Your task to perform on an android device: What's the latest video from GameTrailers? Image 0: 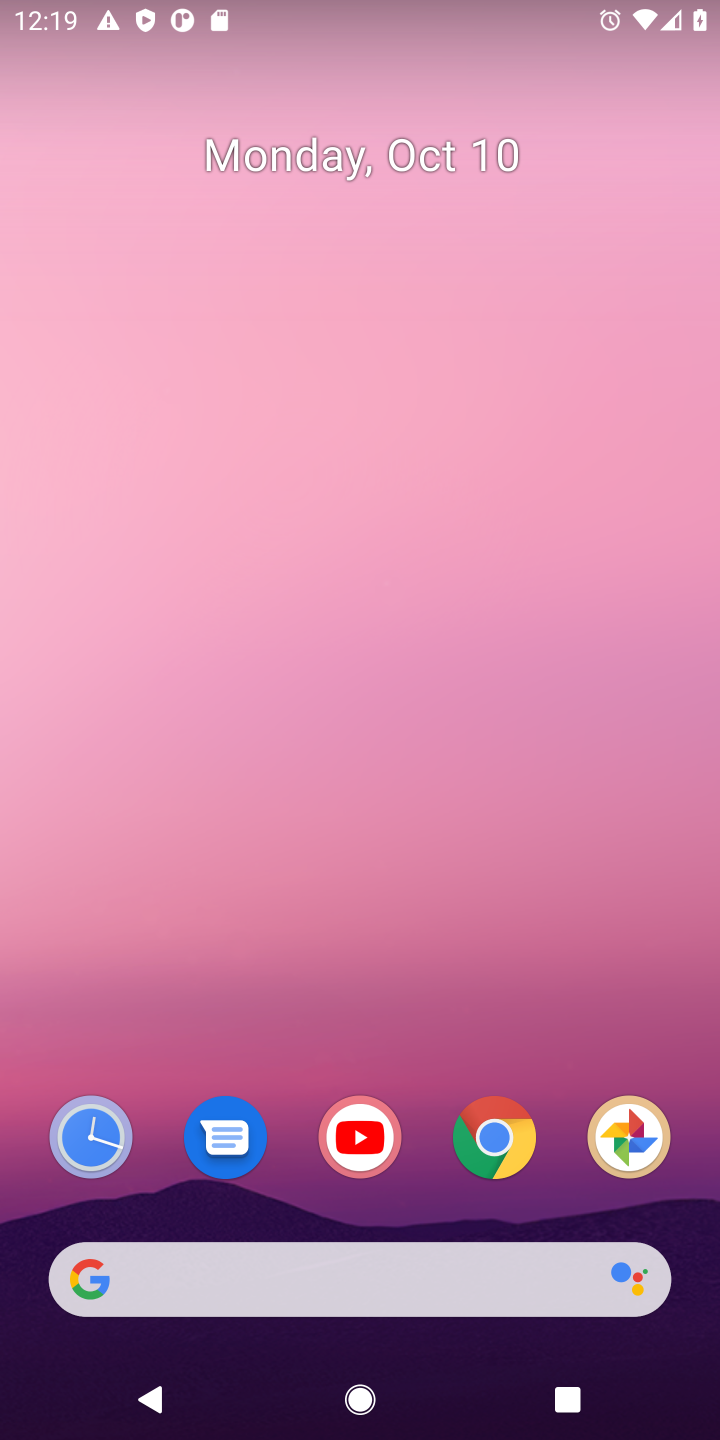
Step 0: drag from (442, 1059) to (493, 136)
Your task to perform on an android device: What's the latest video from GameTrailers? Image 1: 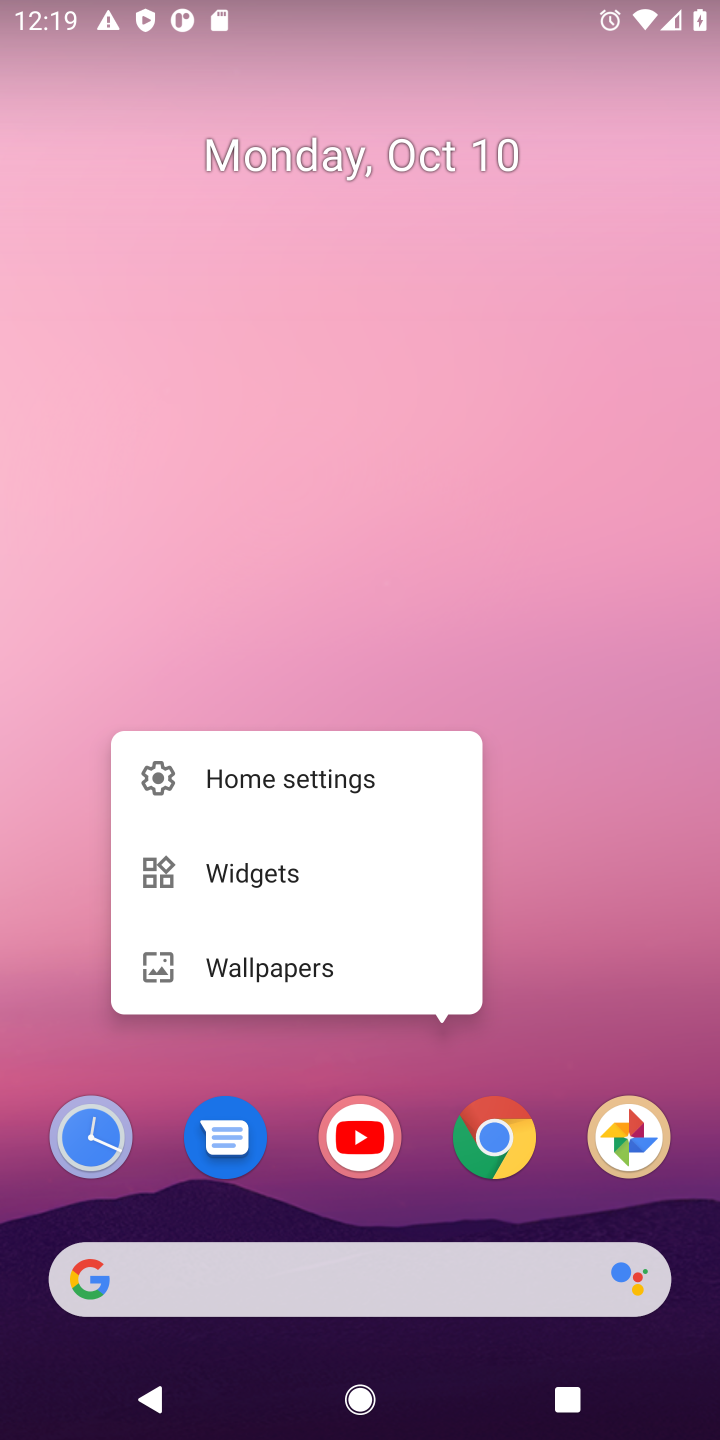
Step 1: click (596, 881)
Your task to perform on an android device: What's the latest video from GameTrailers? Image 2: 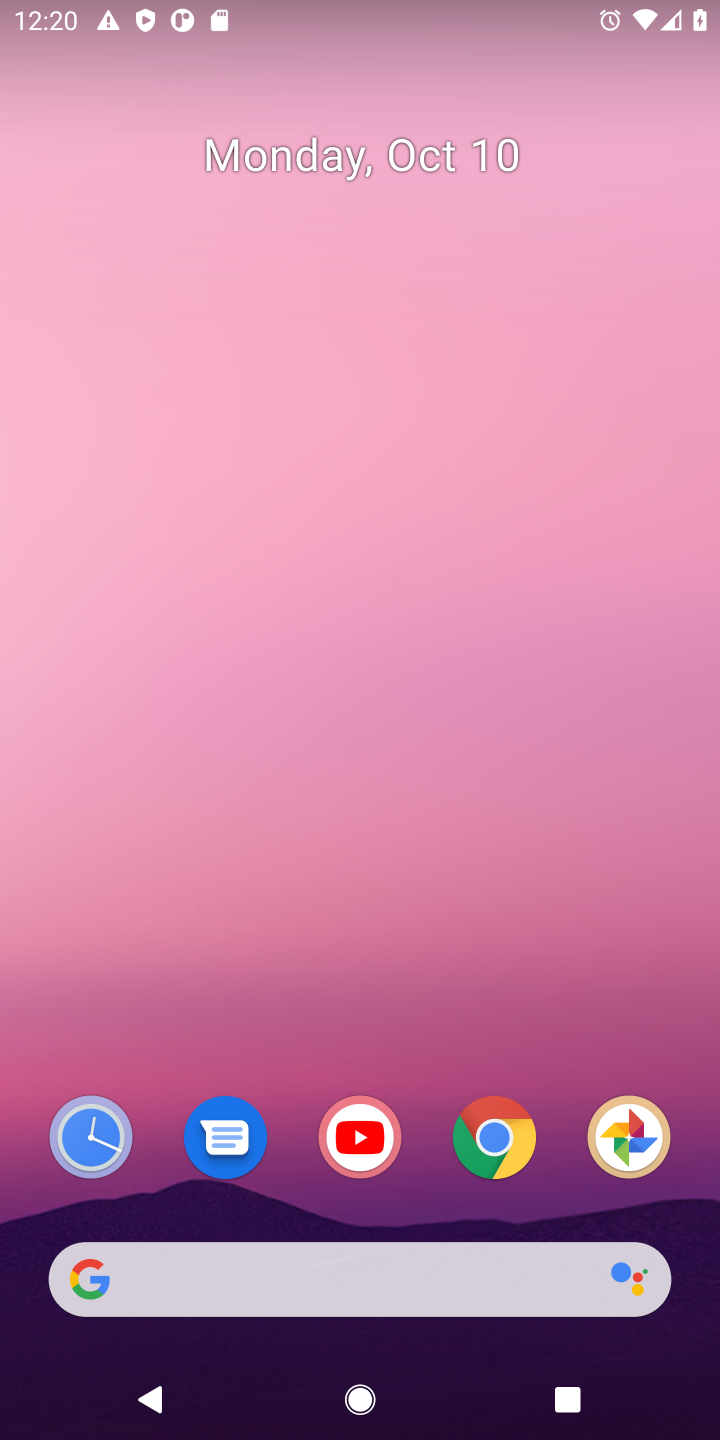
Step 2: drag from (413, 1069) to (420, 154)
Your task to perform on an android device: What's the latest video from GameTrailers? Image 3: 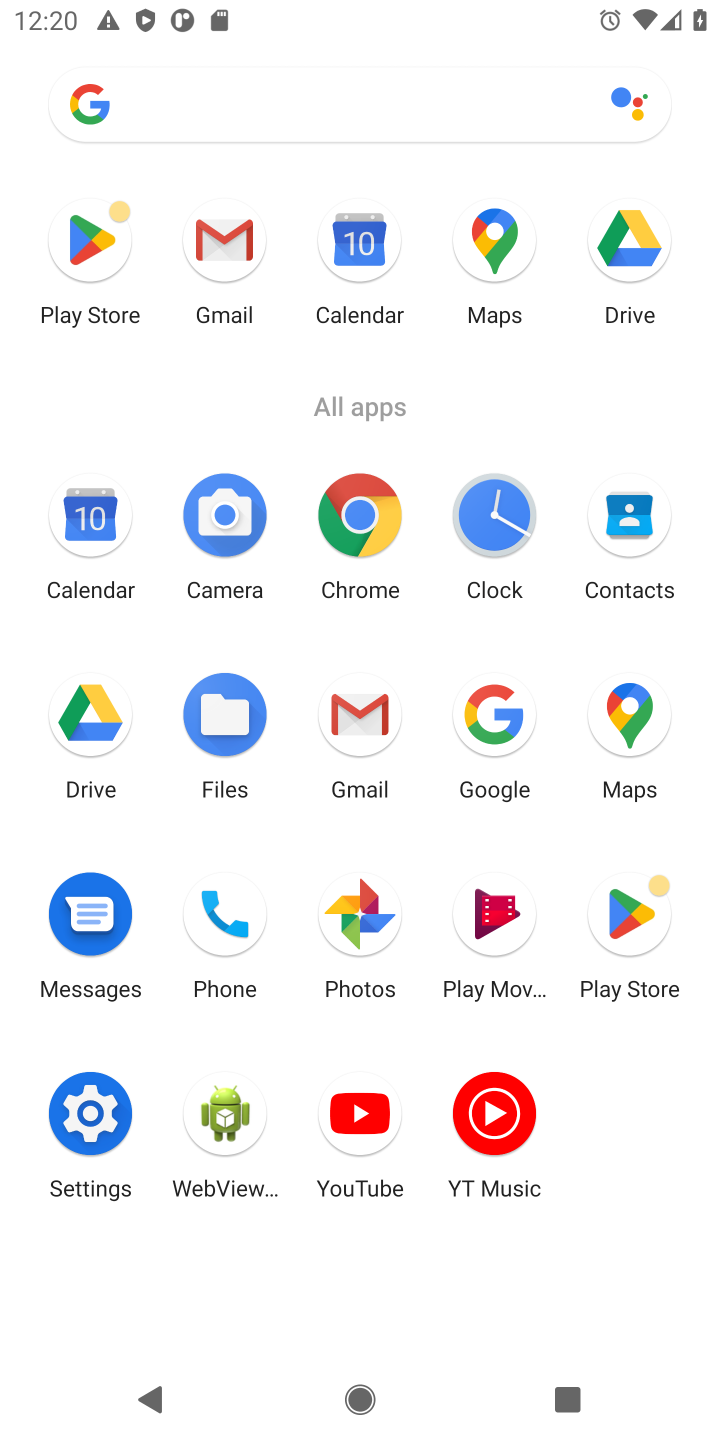
Step 3: click (356, 504)
Your task to perform on an android device: What's the latest video from GameTrailers? Image 4: 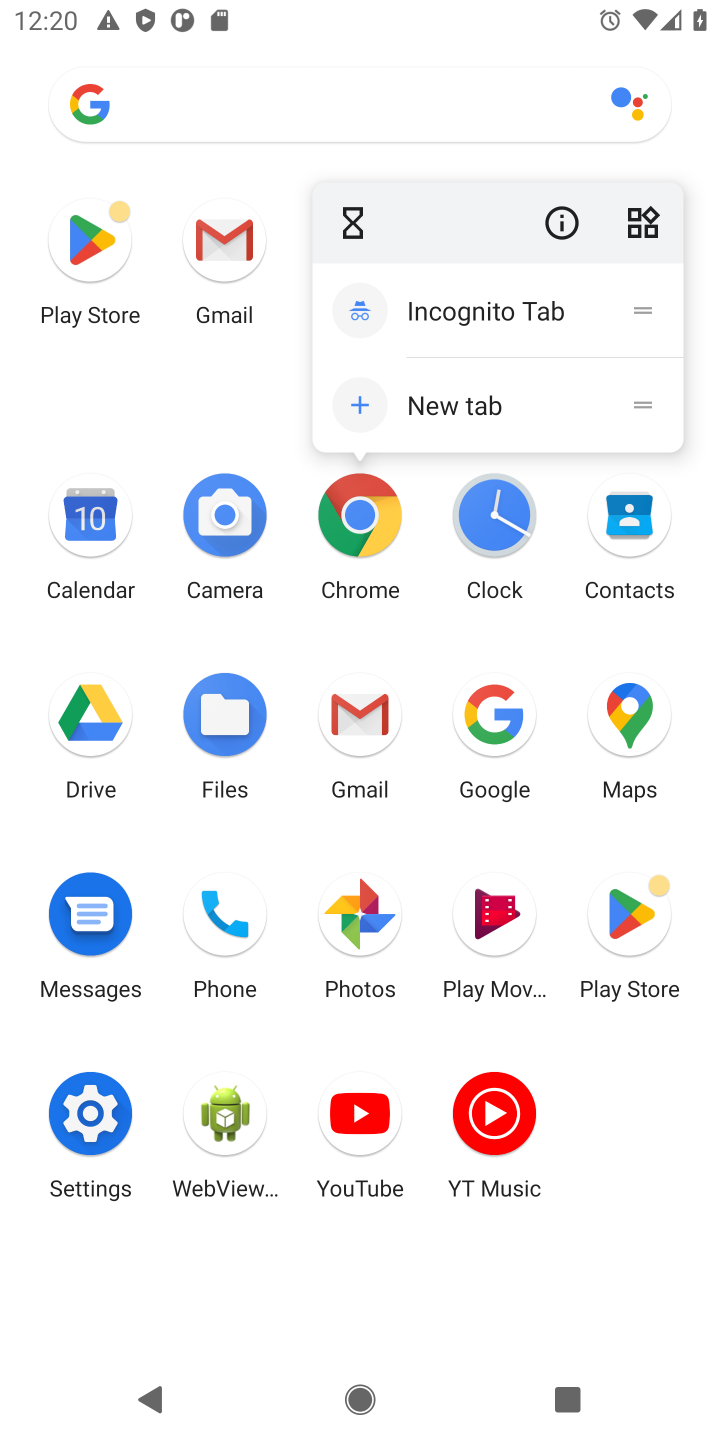
Step 4: click (367, 511)
Your task to perform on an android device: What's the latest video from GameTrailers? Image 5: 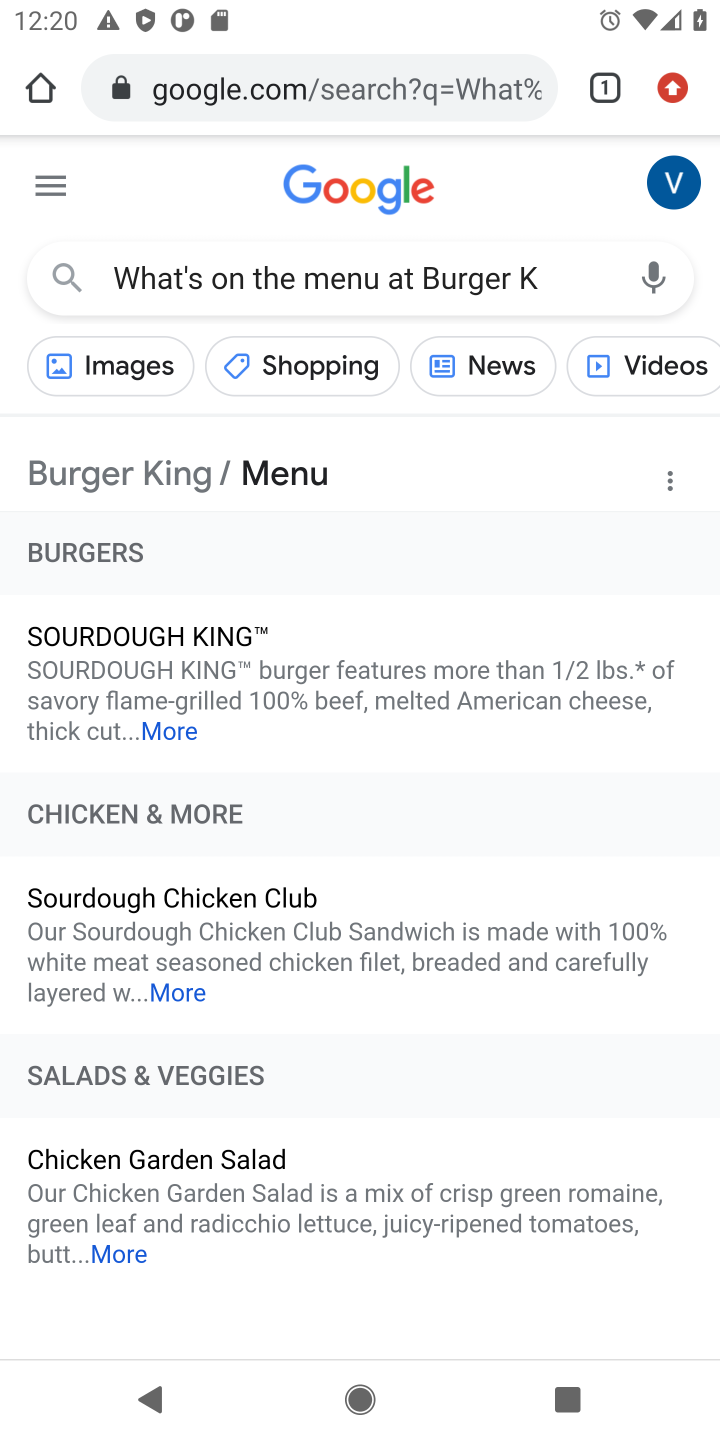
Step 5: click (395, 84)
Your task to perform on an android device: What's the latest video from GameTrailers? Image 6: 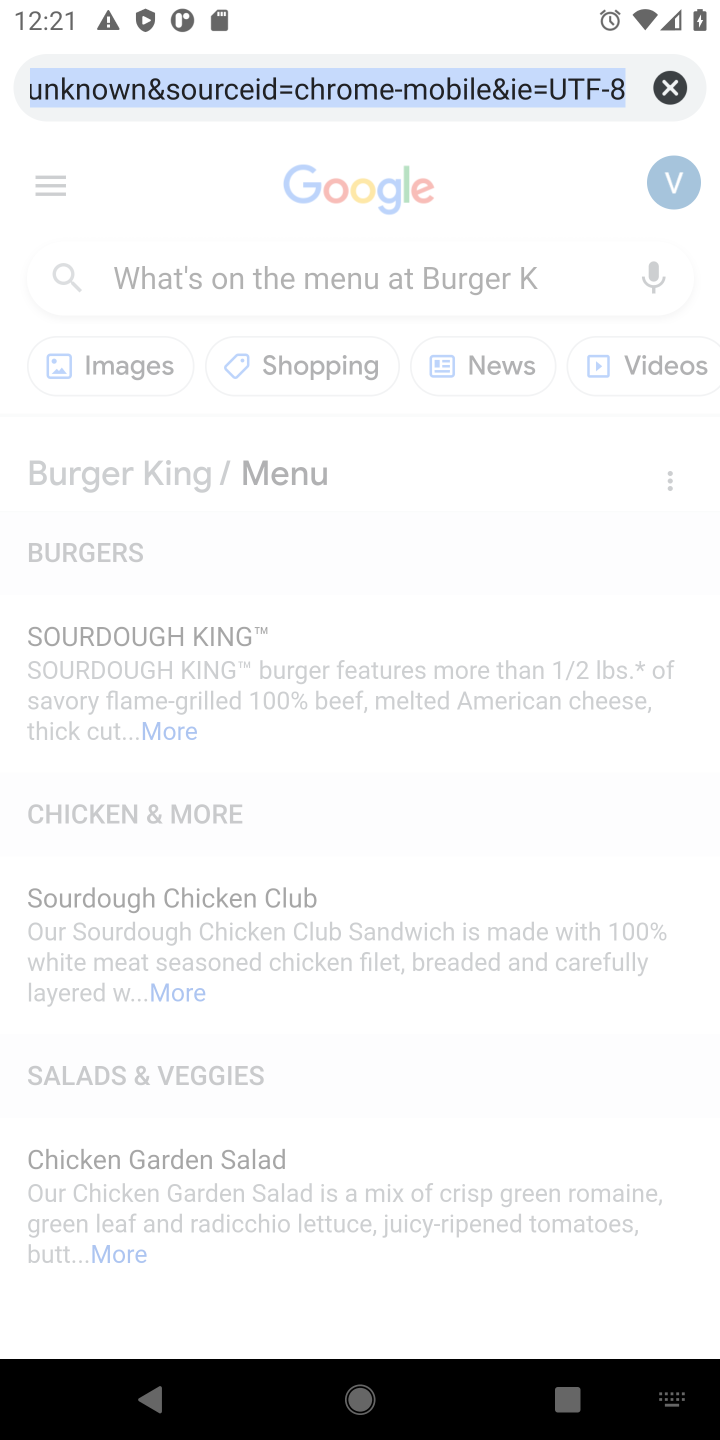
Step 6: click (676, 84)
Your task to perform on an android device: What's the latest video from GameTrailers? Image 7: 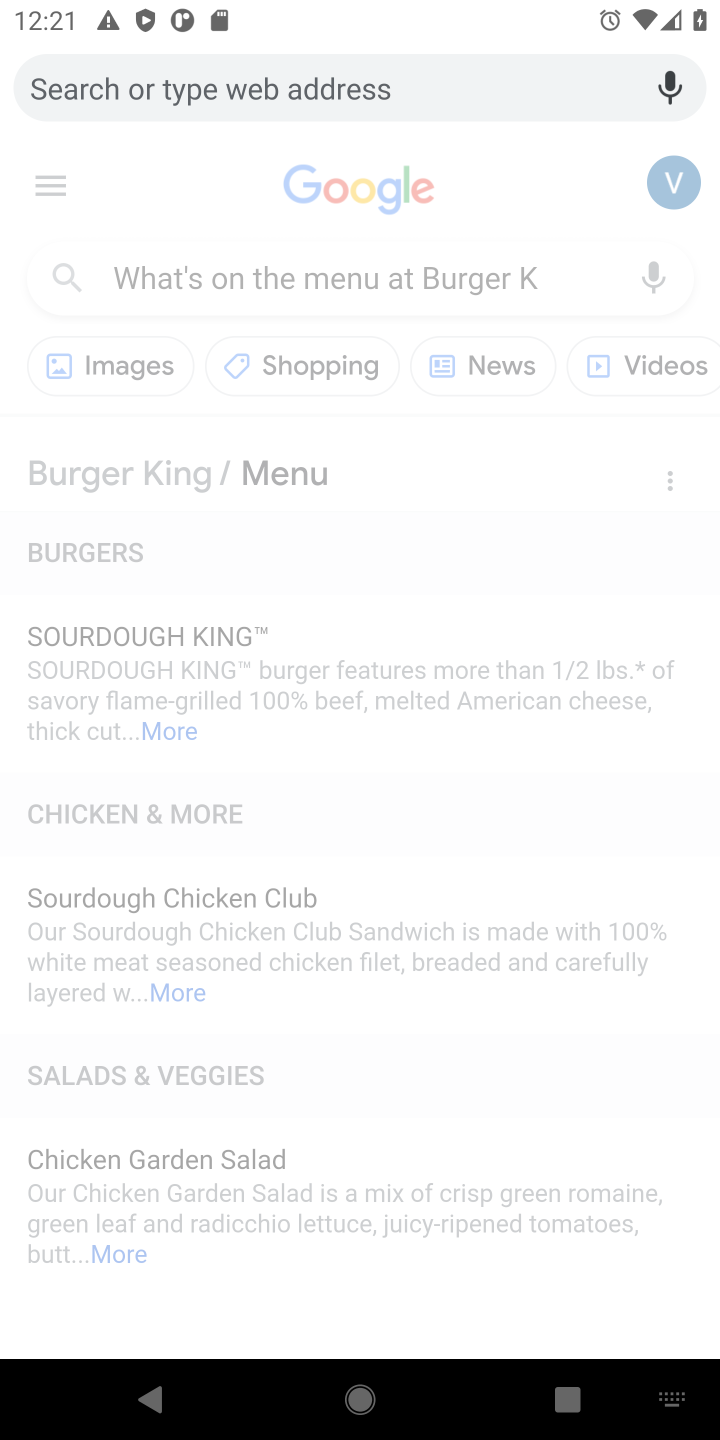
Step 7: type "What's the latest video from GameTrailers?"
Your task to perform on an android device: What's the latest video from GameTrailers? Image 8: 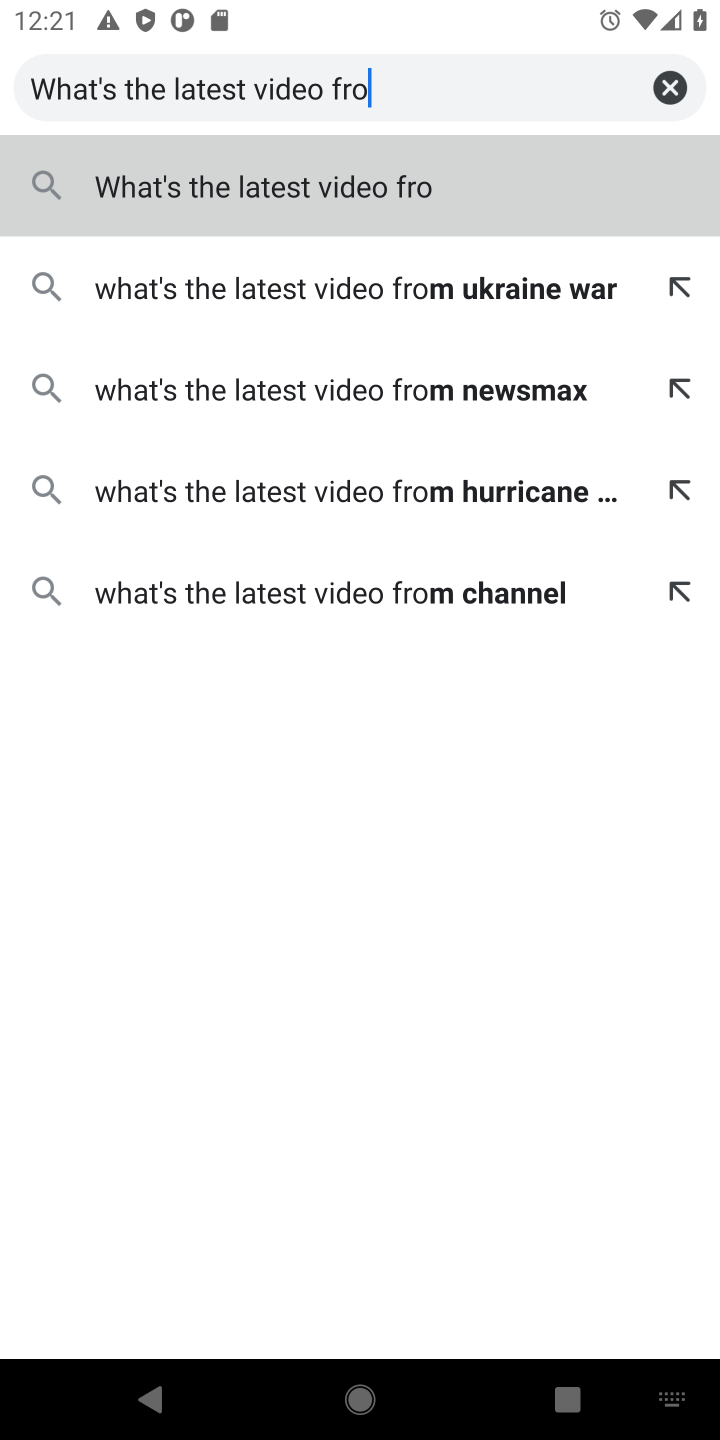
Step 8: click (375, 175)
Your task to perform on an android device: What's the latest video from GameTrailers? Image 9: 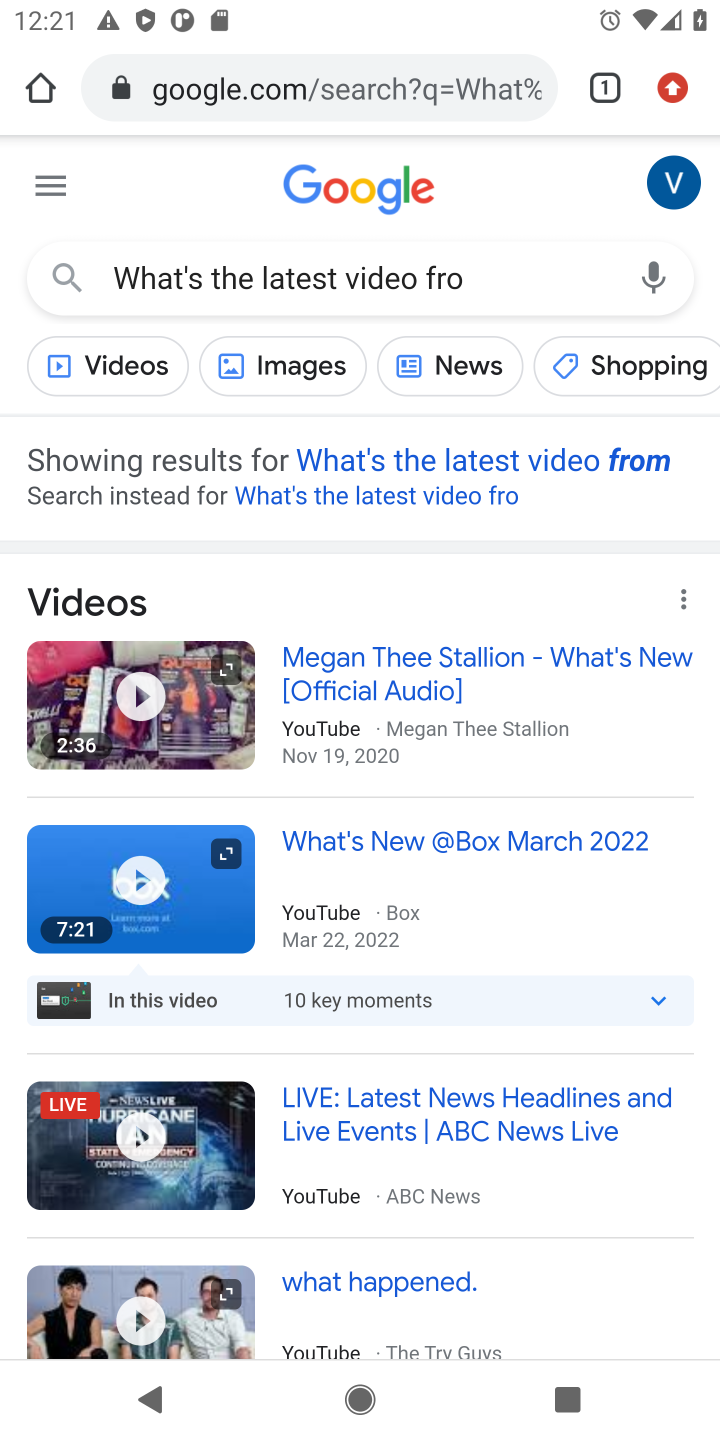
Step 9: task complete